Your task to perform on an android device: Add "acer nitro" to the cart on amazon.com, then select checkout. Image 0: 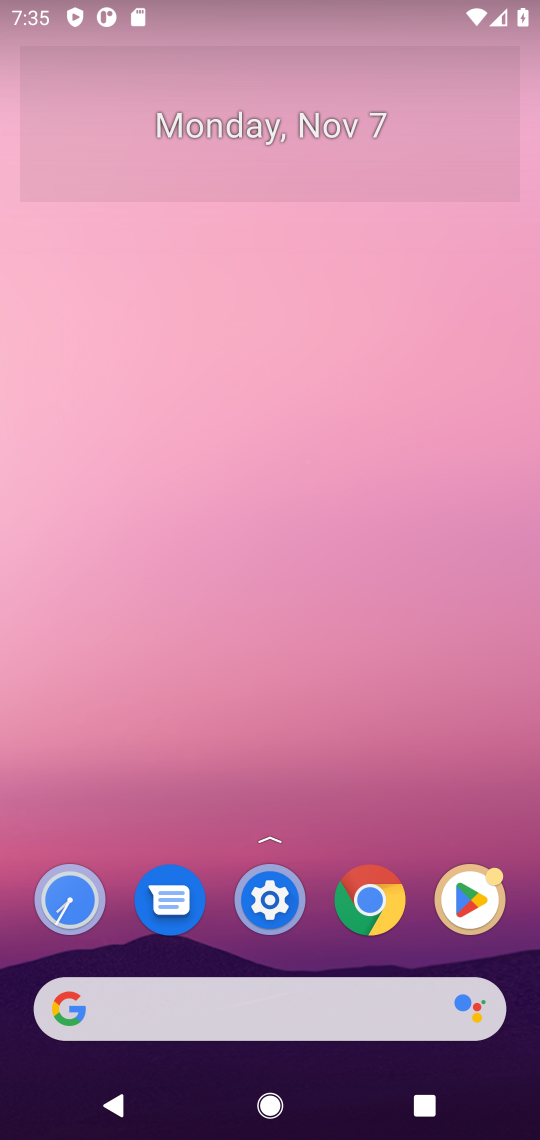
Step 0: click (287, 1019)
Your task to perform on an android device: Add "acer nitro" to the cart on amazon.com, then select checkout. Image 1: 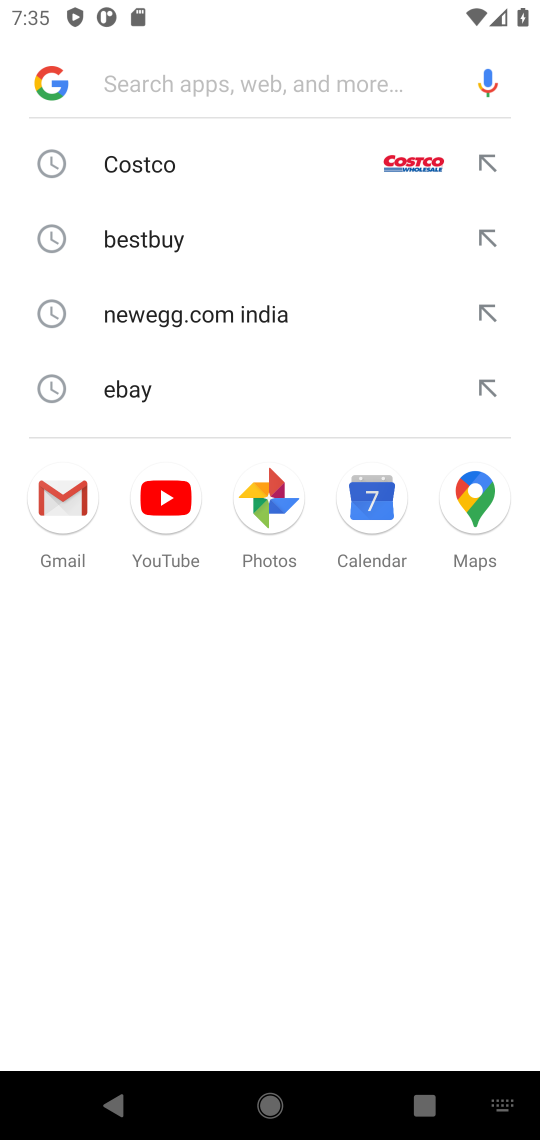
Step 1: type "amaz"
Your task to perform on an android device: Add "acer nitro" to the cart on amazon.com, then select checkout. Image 2: 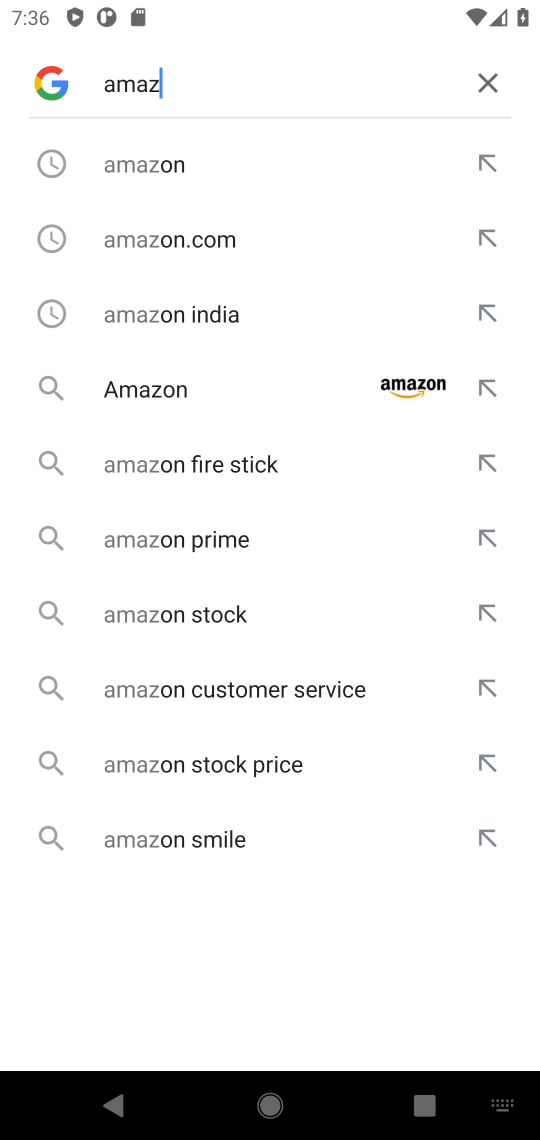
Step 2: click (189, 238)
Your task to perform on an android device: Add "acer nitro" to the cart on amazon.com, then select checkout. Image 3: 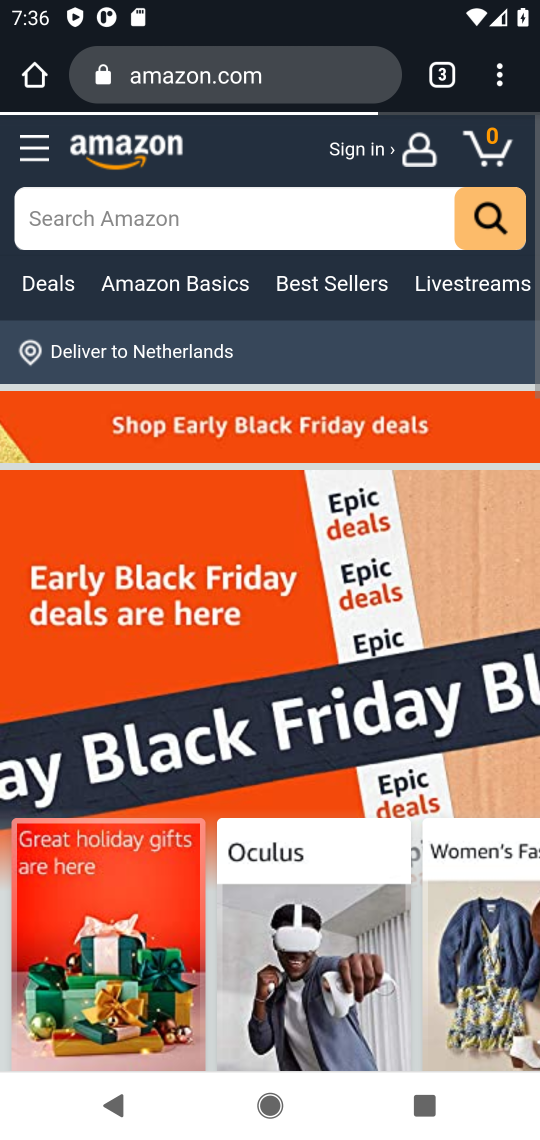
Step 3: click (189, 238)
Your task to perform on an android device: Add "acer nitro" to the cart on amazon.com, then select checkout. Image 4: 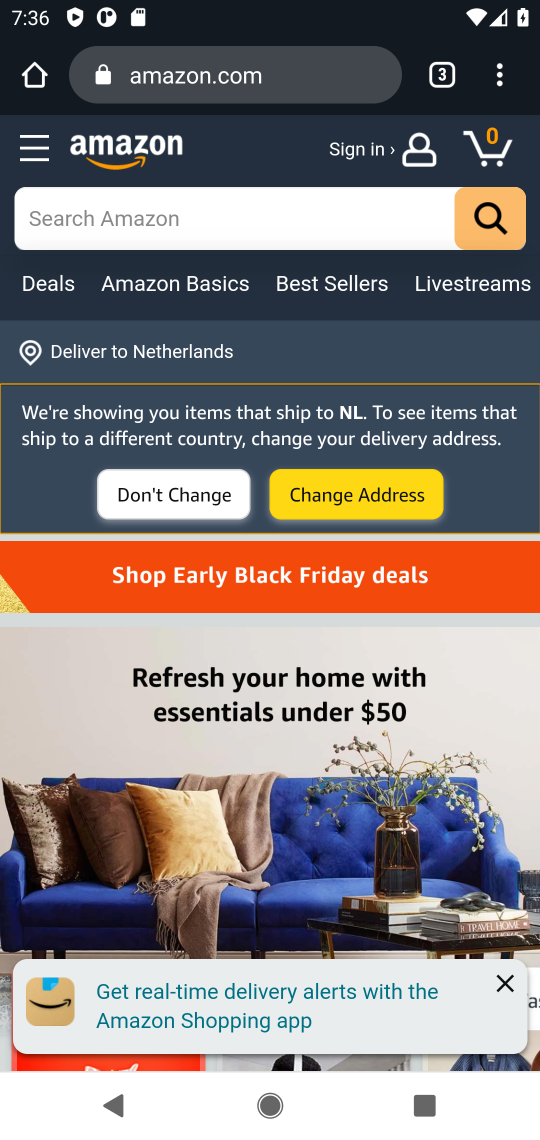
Step 4: type "acer "
Your task to perform on an android device: Add "acer nitro" to the cart on amazon.com, then select checkout. Image 5: 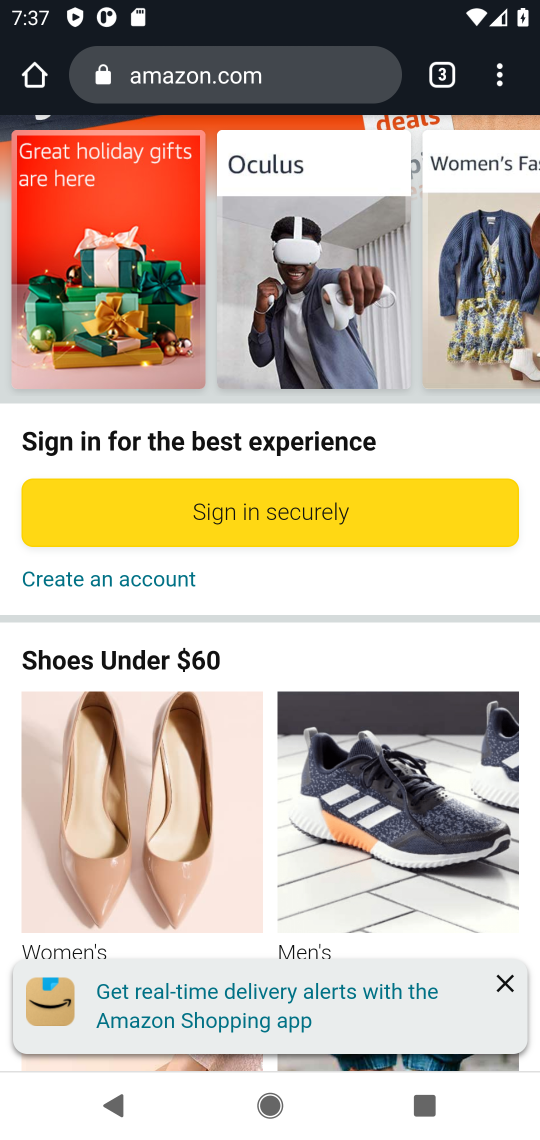
Step 5: task complete